Your task to perform on an android device: Is it going to rain this weekend? Image 0: 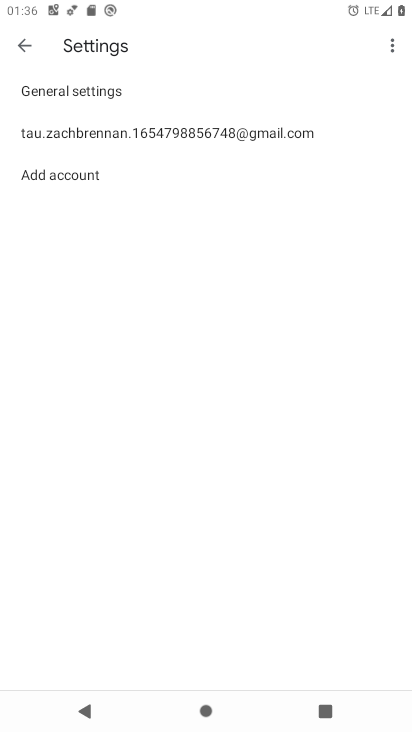
Step 0: click (10, 39)
Your task to perform on an android device: Is it going to rain this weekend? Image 1: 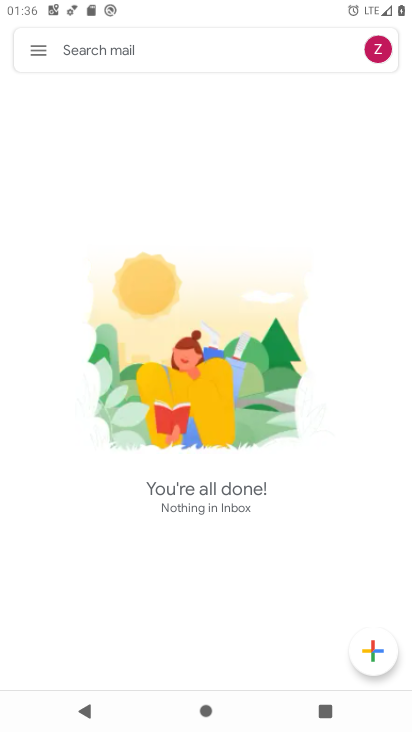
Step 1: press home button
Your task to perform on an android device: Is it going to rain this weekend? Image 2: 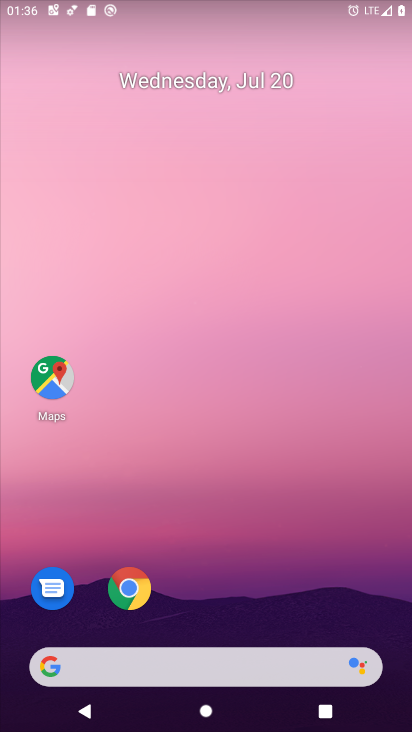
Step 2: drag from (206, 624) to (202, 208)
Your task to perform on an android device: Is it going to rain this weekend? Image 3: 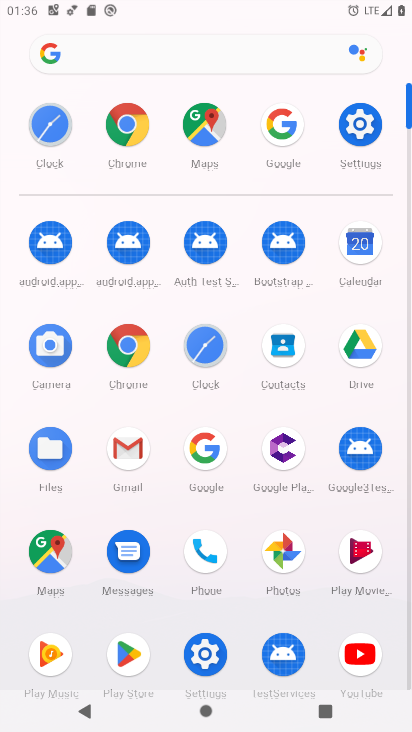
Step 3: click (288, 124)
Your task to perform on an android device: Is it going to rain this weekend? Image 4: 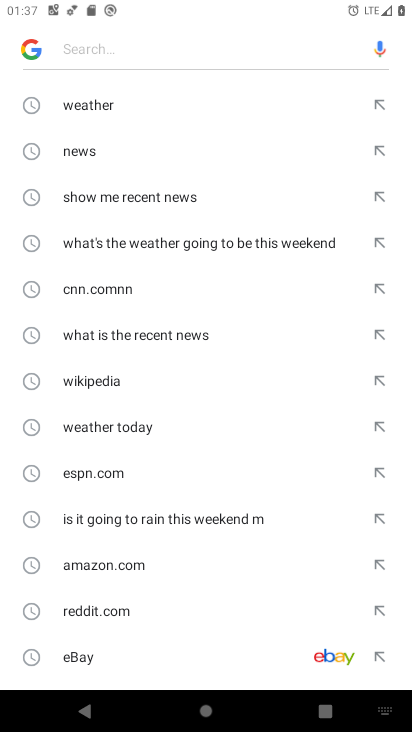
Step 4: press home button
Your task to perform on an android device: Is it going to rain this weekend? Image 5: 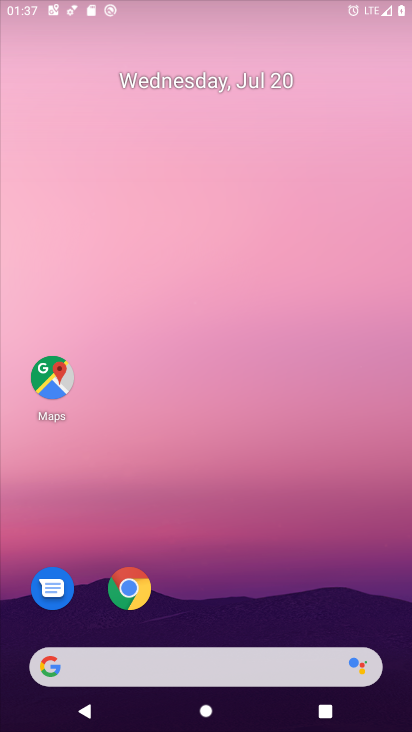
Step 5: drag from (232, 621) to (232, 194)
Your task to perform on an android device: Is it going to rain this weekend? Image 6: 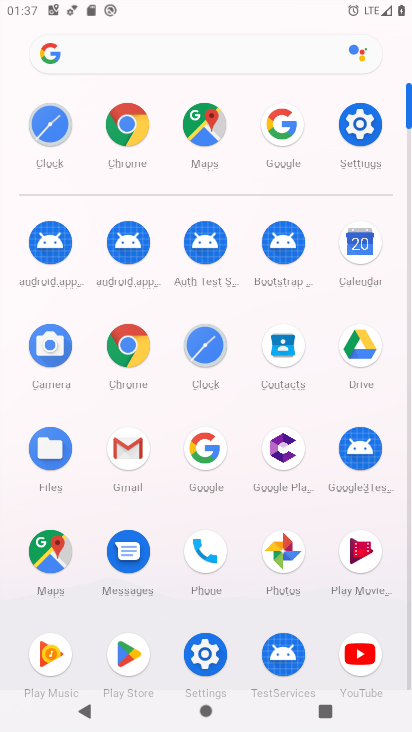
Step 6: click (133, 126)
Your task to perform on an android device: Is it going to rain this weekend? Image 7: 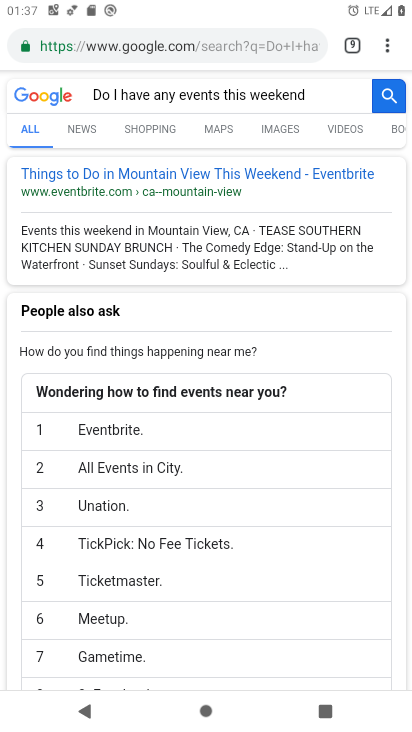
Step 7: click (394, 37)
Your task to perform on an android device: Is it going to rain this weekend? Image 8: 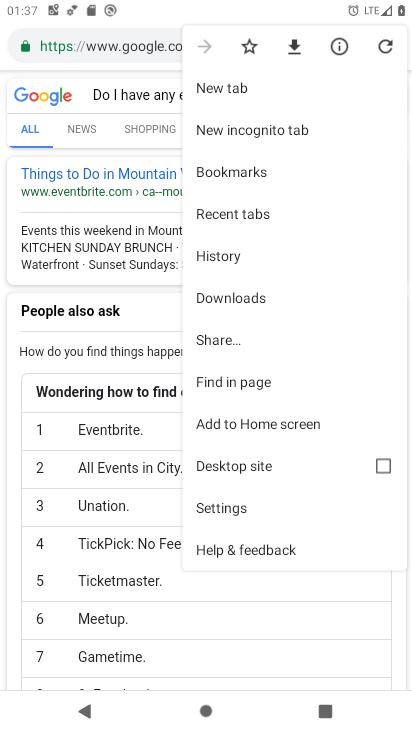
Step 8: click (264, 79)
Your task to perform on an android device: Is it going to rain this weekend? Image 9: 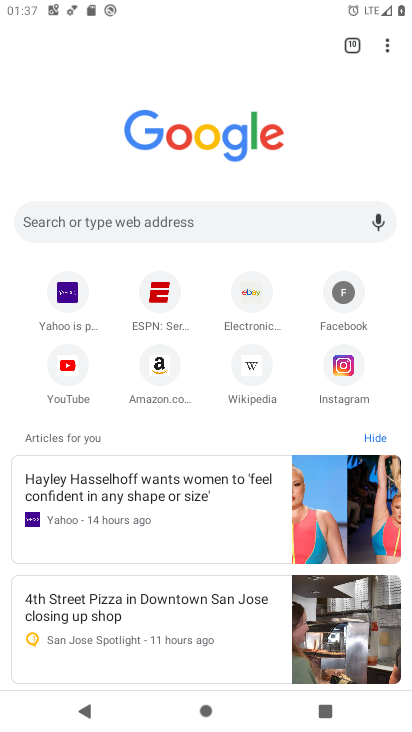
Step 9: click (215, 206)
Your task to perform on an android device: Is it going to rain this weekend? Image 10: 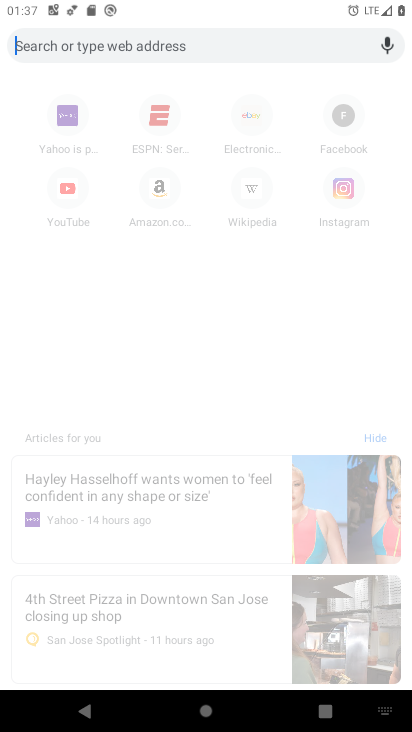
Step 10: type "Is it going to rain this weekend "
Your task to perform on an android device: Is it going to rain this weekend? Image 11: 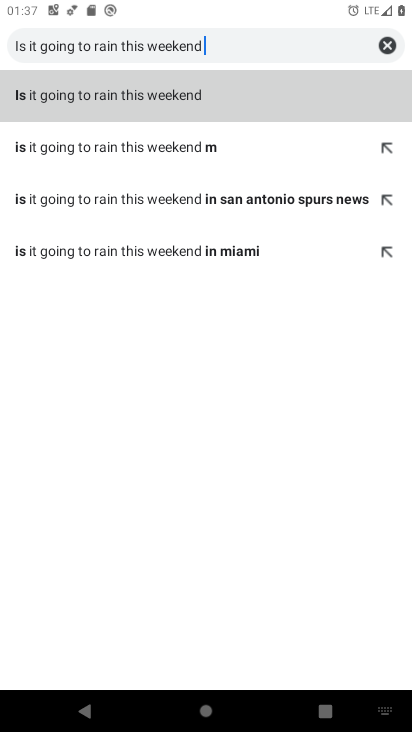
Step 11: click (243, 95)
Your task to perform on an android device: Is it going to rain this weekend? Image 12: 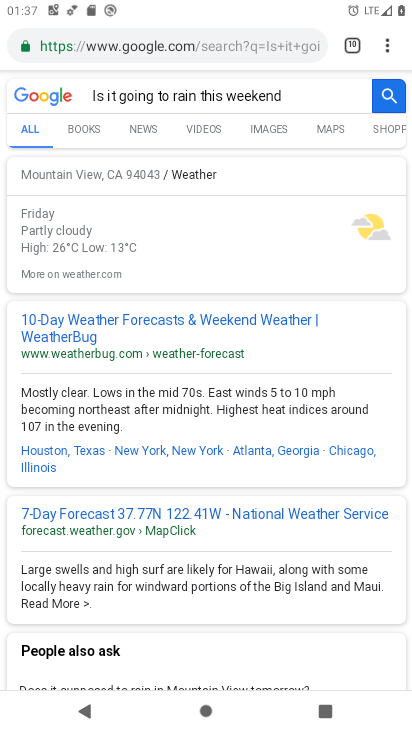
Step 12: task complete